Your task to perform on an android device: Go to ESPN.com Image 0: 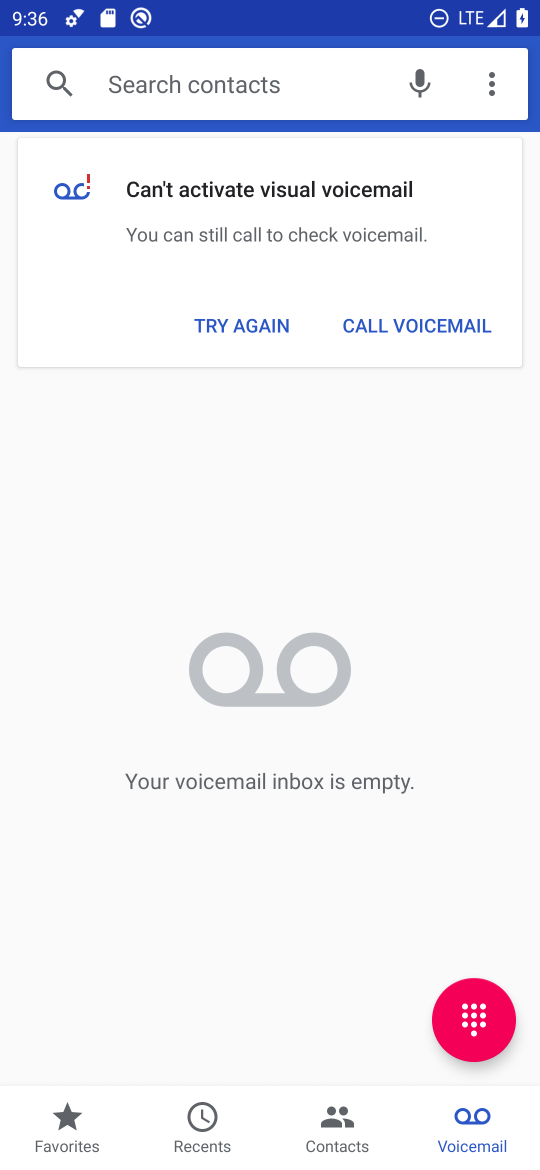
Step 0: press home button
Your task to perform on an android device: Go to ESPN.com Image 1: 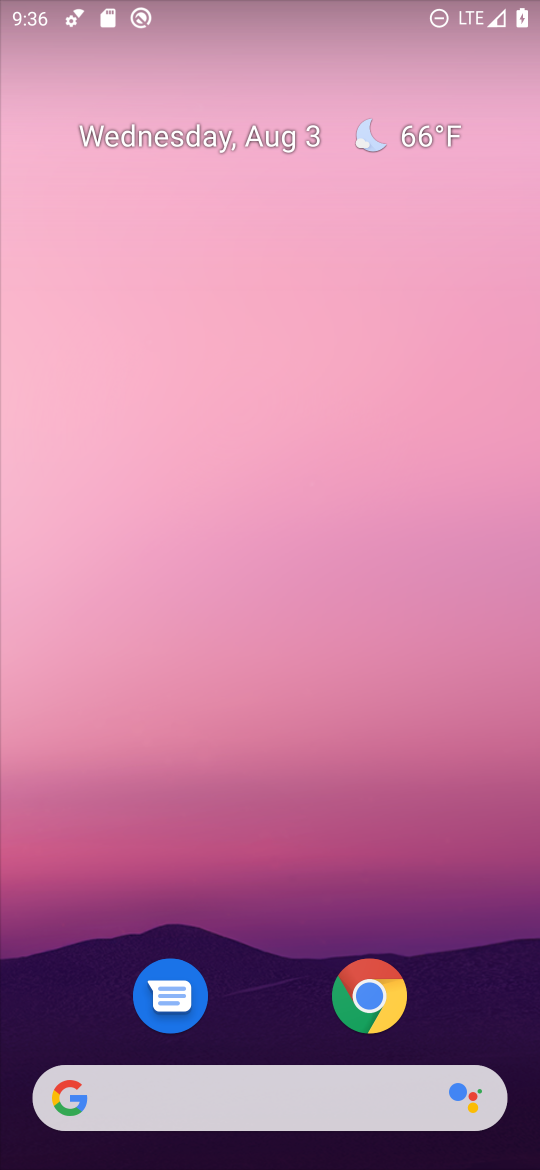
Step 1: click (366, 1111)
Your task to perform on an android device: Go to ESPN.com Image 2: 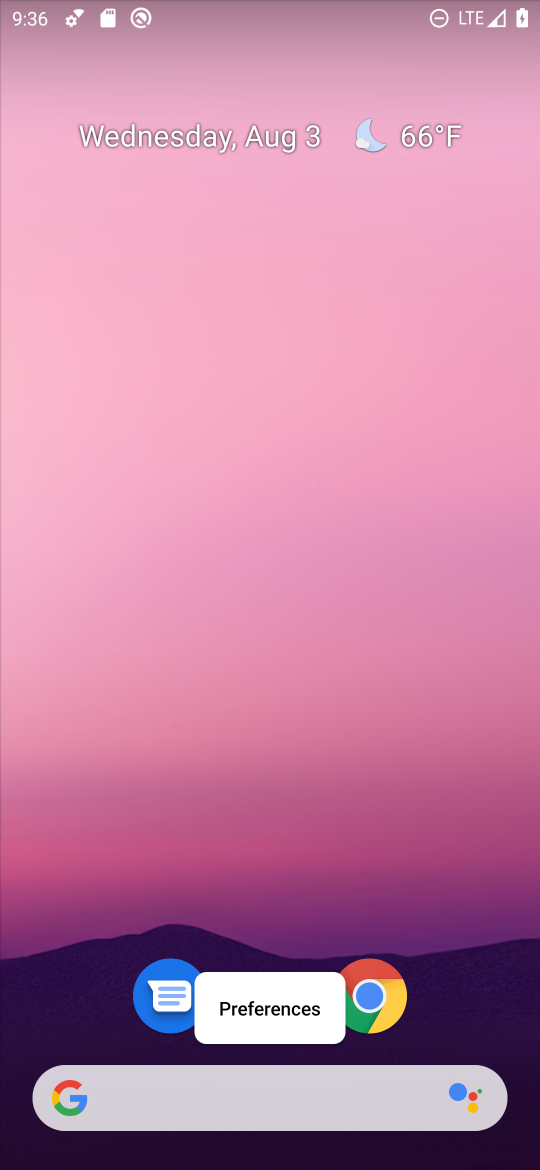
Step 2: click (368, 1114)
Your task to perform on an android device: Go to ESPN.com Image 3: 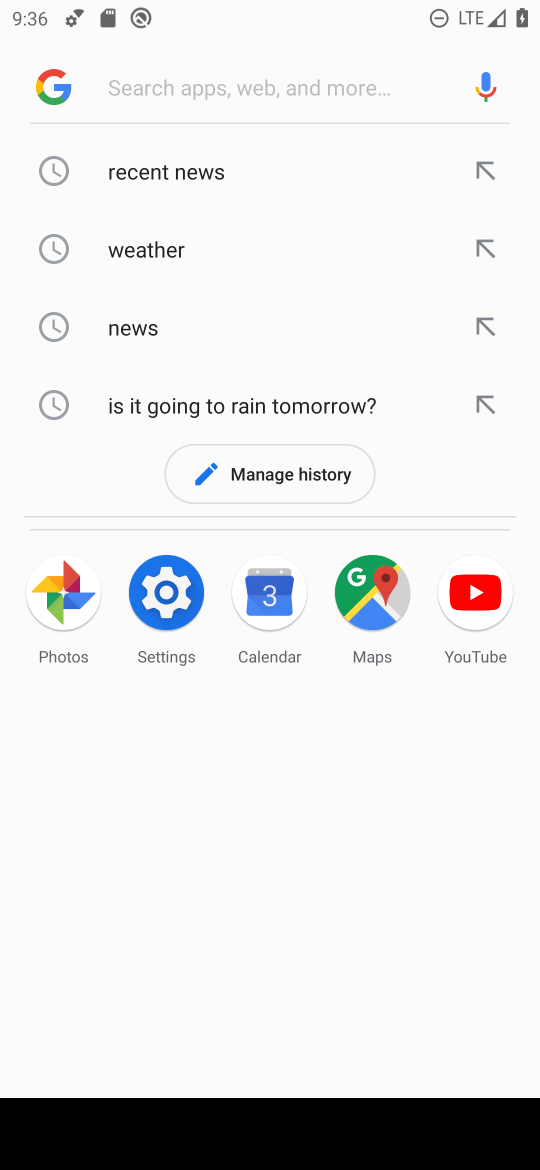
Step 3: type "espn.com"
Your task to perform on an android device: Go to ESPN.com Image 4: 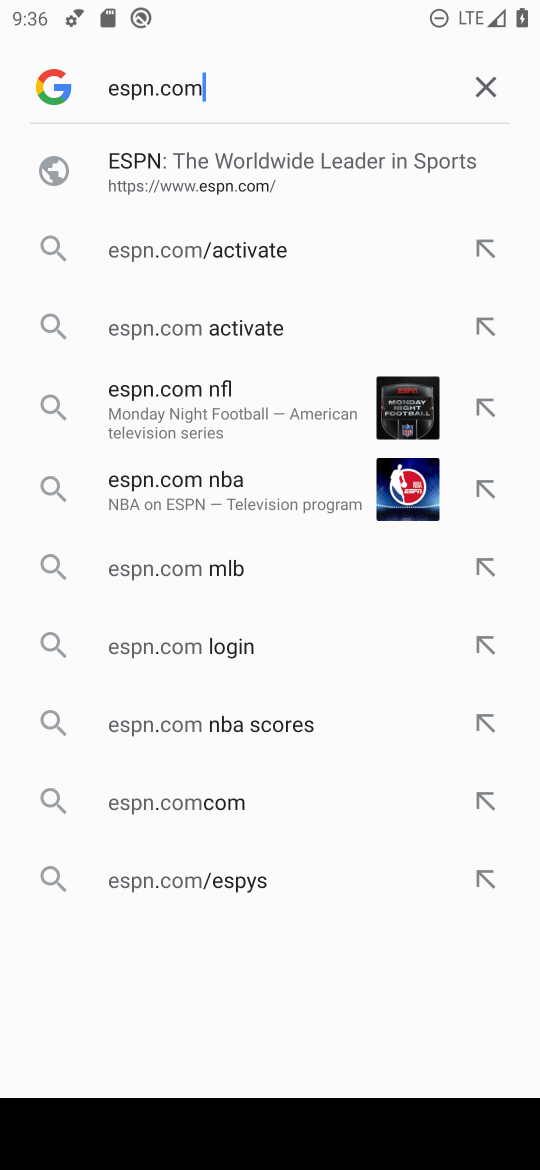
Step 4: click (265, 156)
Your task to perform on an android device: Go to ESPN.com Image 5: 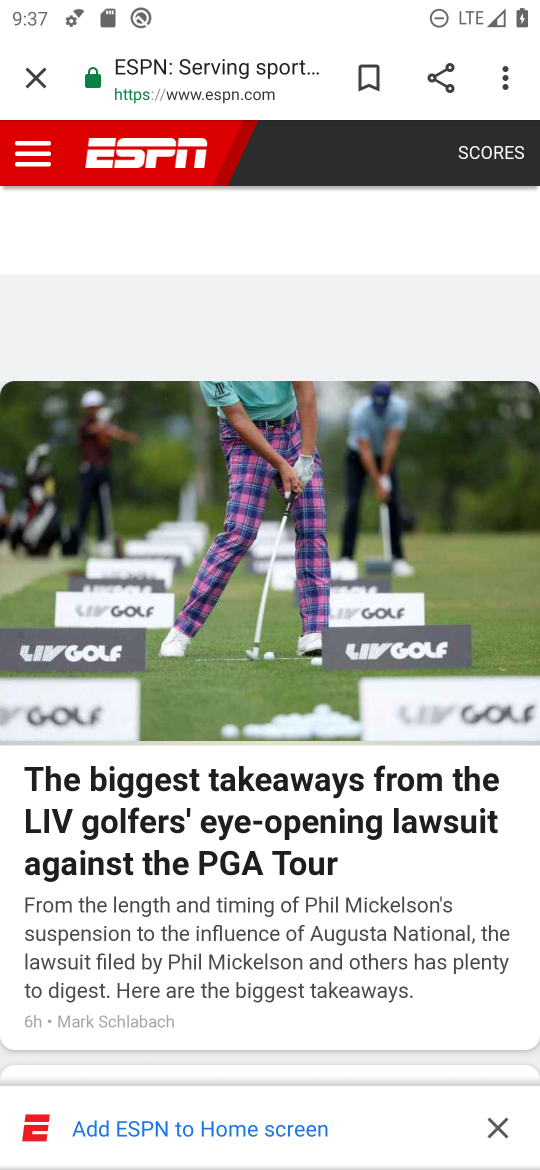
Step 5: task complete